Your task to perform on an android device: turn on wifi Image 0: 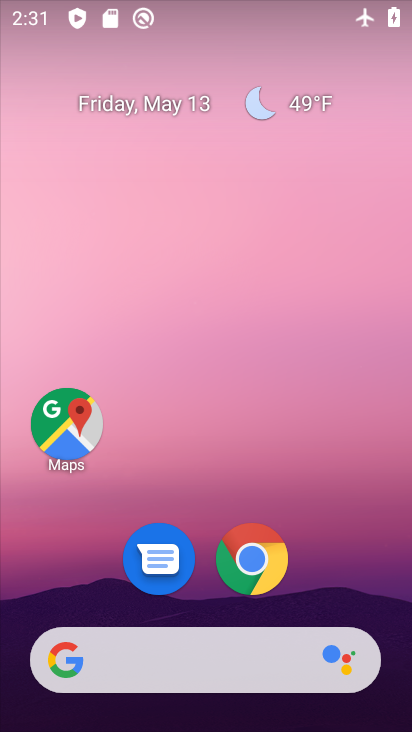
Step 0: drag from (391, 637) to (305, 193)
Your task to perform on an android device: turn on wifi Image 1: 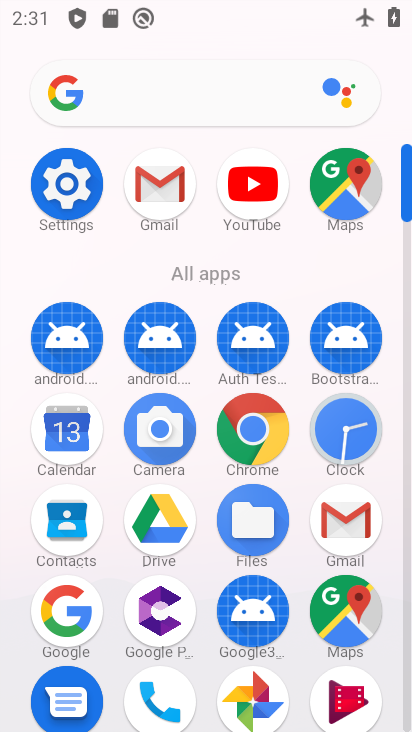
Step 1: click (411, 696)
Your task to perform on an android device: turn on wifi Image 2: 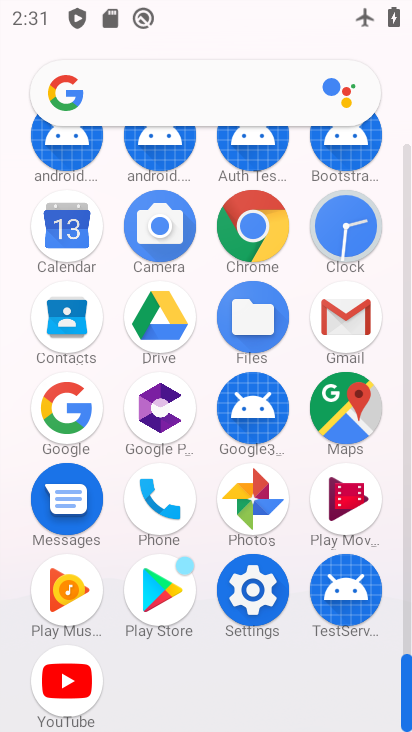
Step 2: click (252, 589)
Your task to perform on an android device: turn on wifi Image 3: 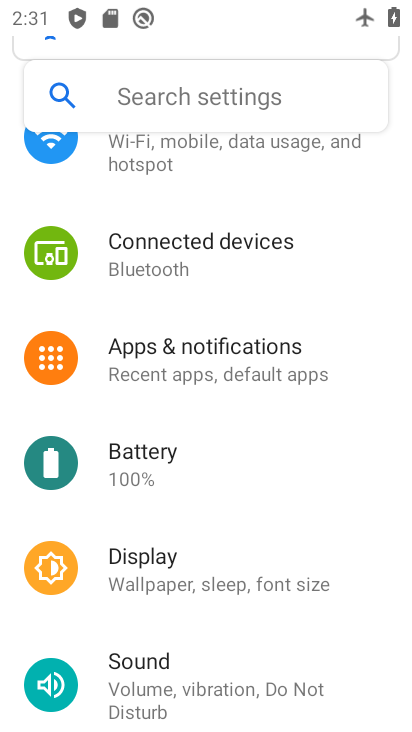
Step 3: drag from (341, 208) to (350, 475)
Your task to perform on an android device: turn on wifi Image 4: 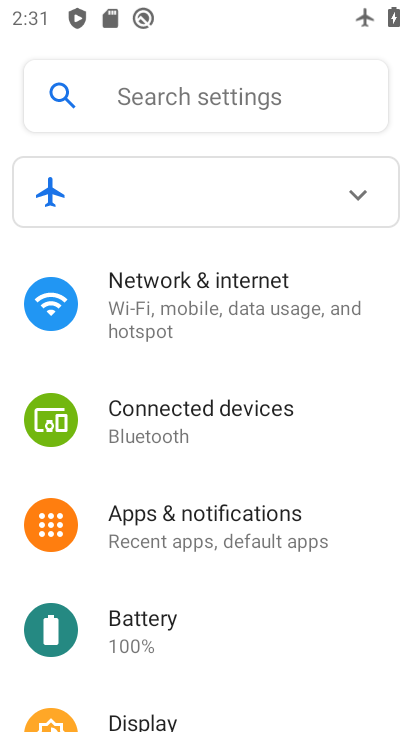
Step 4: click (160, 286)
Your task to perform on an android device: turn on wifi Image 5: 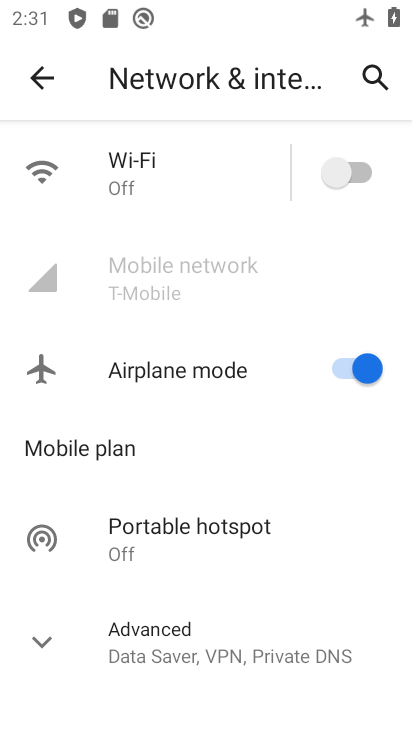
Step 5: click (358, 165)
Your task to perform on an android device: turn on wifi Image 6: 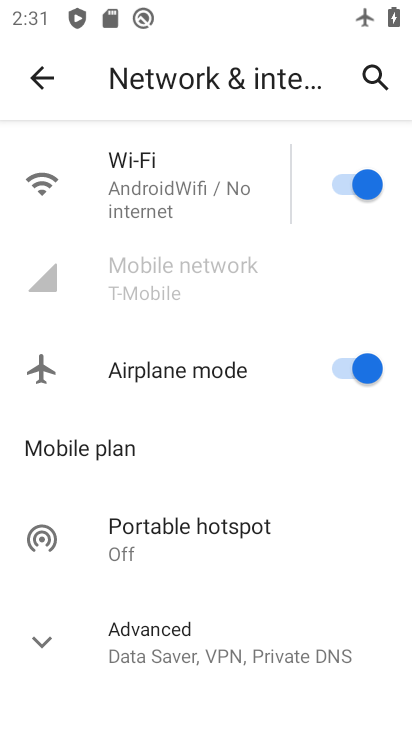
Step 6: task complete